Your task to perform on an android device: clear all cookies in the chrome app Image 0: 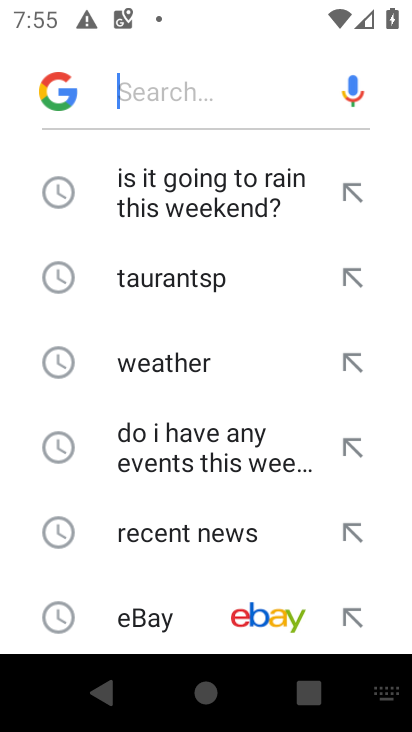
Step 0: press home button
Your task to perform on an android device: clear all cookies in the chrome app Image 1: 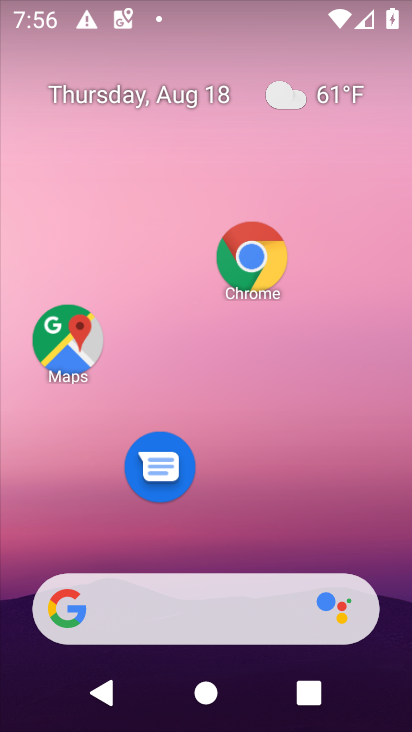
Step 1: click (249, 269)
Your task to perform on an android device: clear all cookies in the chrome app Image 2: 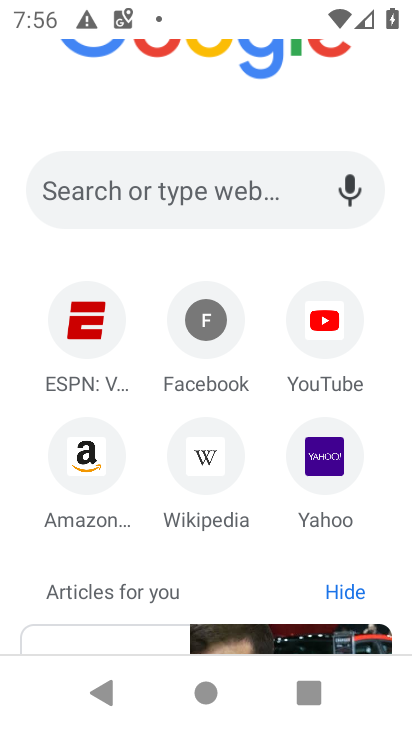
Step 2: task complete